Your task to perform on an android device: Search for pizza restaurants on Maps Image 0: 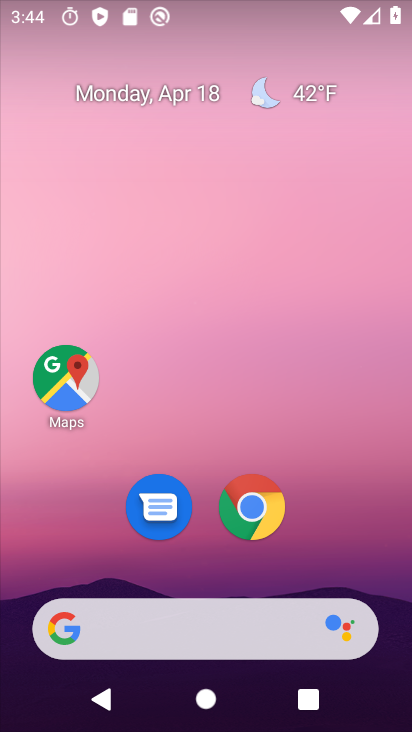
Step 0: drag from (314, 565) to (289, 0)
Your task to perform on an android device: Search for pizza restaurants on Maps Image 1: 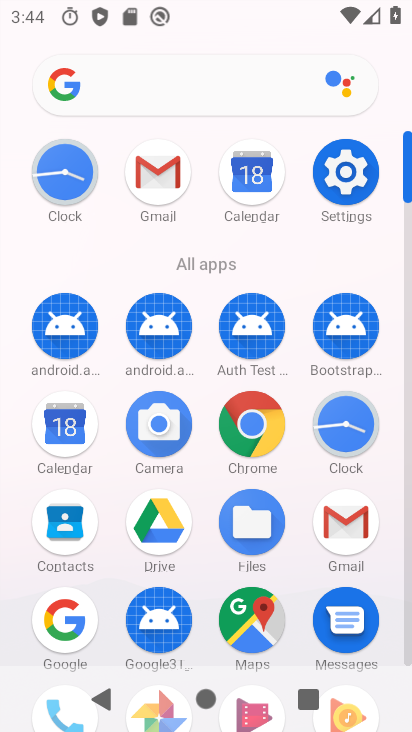
Step 1: click (251, 607)
Your task to perform on an android device: Search for pizza restaurants on Maps Image 2: 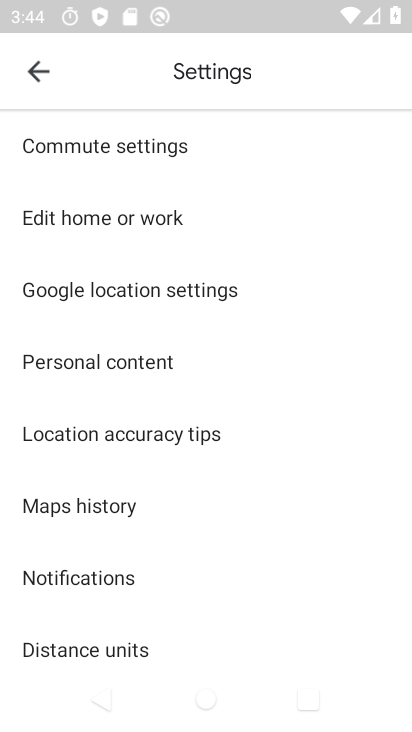
Step 2: press back button
Your task to perform on an android device: Search for pizza restaurants on Maps Image 3: 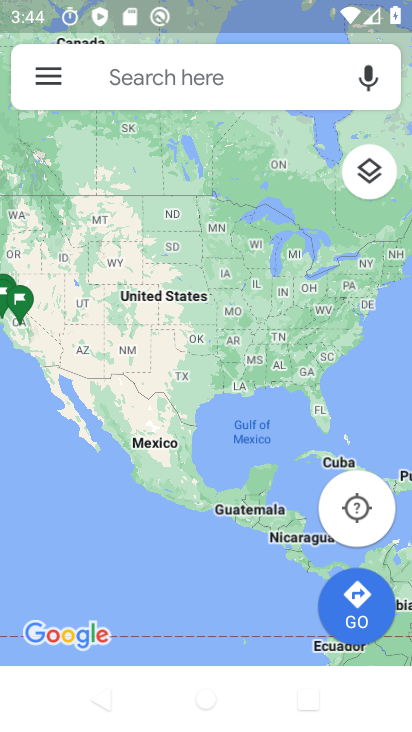
Step 3: click (134, 82)
Your task to perform on an android device: Search for pizza restaurants on Maps Image 4: 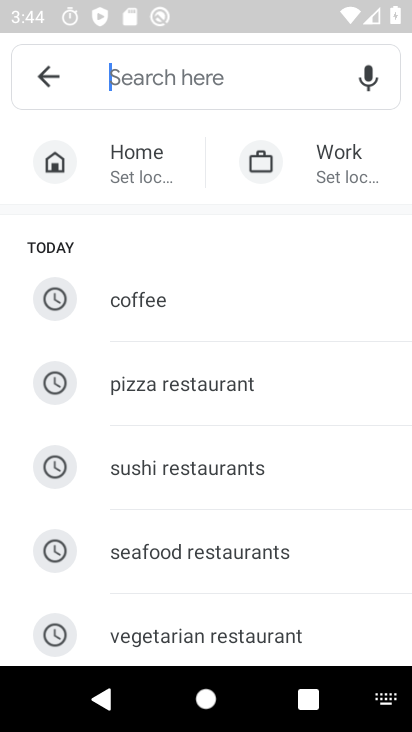
Step 4: type "pizza restaurants"
Your task to perform on an android device: Search for pizza restaurants on Maps Image 5: 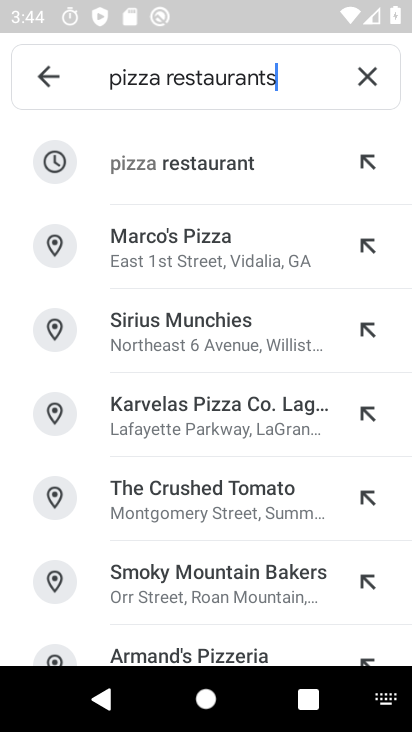
Step 5: click (269, 175)
Your task to perform on an android device: Search for pizza restaurants on Maps Image 6: 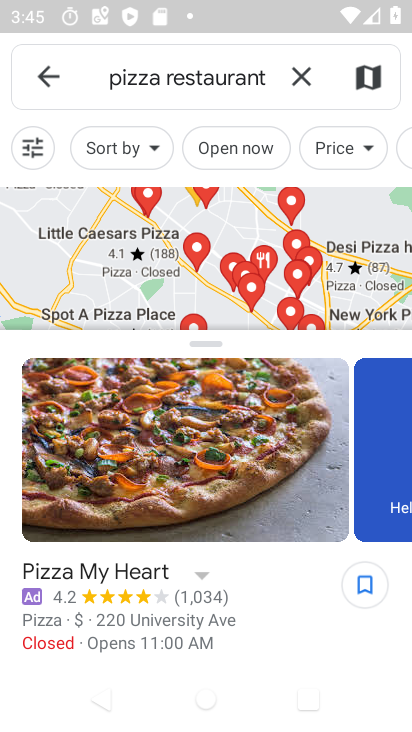
Step 6: task complete